Your task to perform on an android device: Open Youtube and go to the subscriptions tab Image 0: 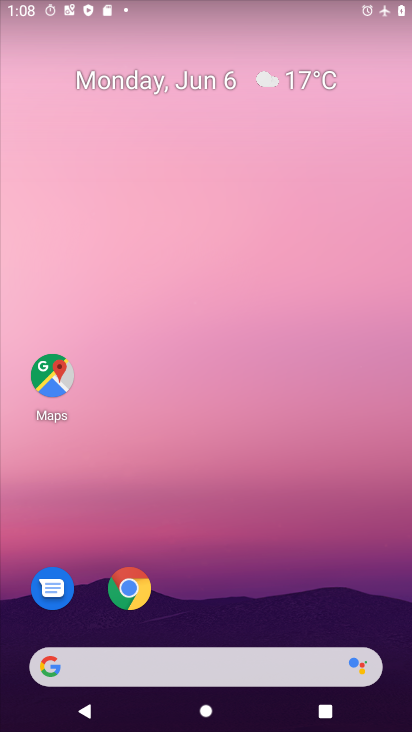
Step 0: drag from (277, 577) to (302, 64)
Your task to perform on an android device: Open Youtube and go to the subscriptions tab Image 1: 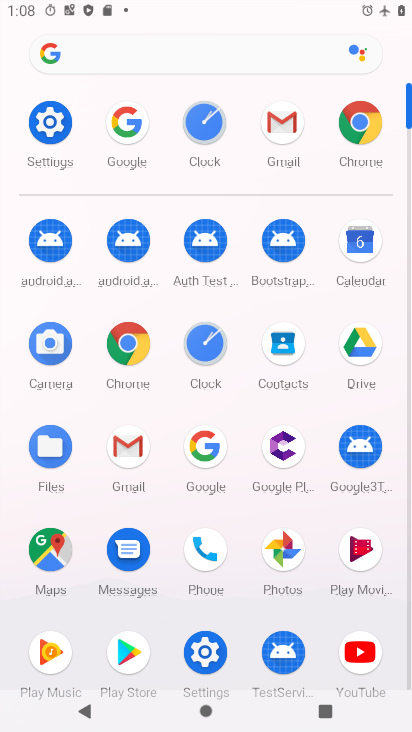
Step 1: click (368, 648)
Your task to perform on an android device: Open Youtube and go to the subscriptions tab Image 2: 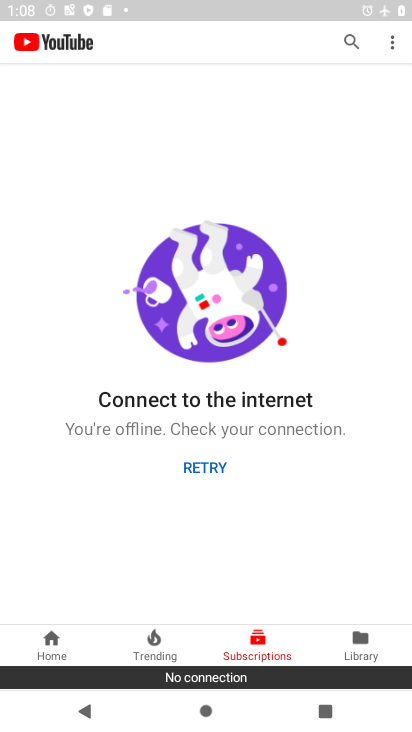
Step 2: task complete